Your task to perform on an android device: When is my next meeting? Image 0: 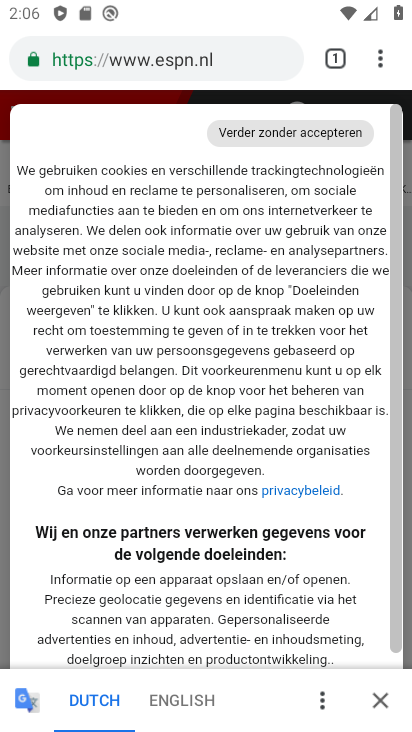
Step 0: press home button
Your task to perform on an android device: When is my next meeting? Image 1: 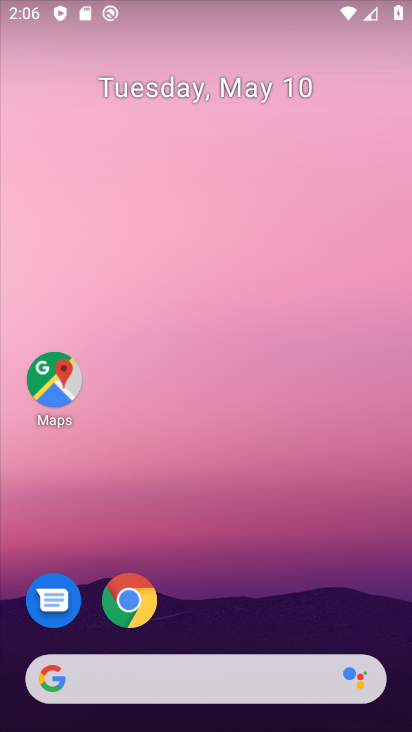
Step 1: drag from (155, 654) to (190, 326)
Your task to perform on an android device: When is my next meeting? Image 2: 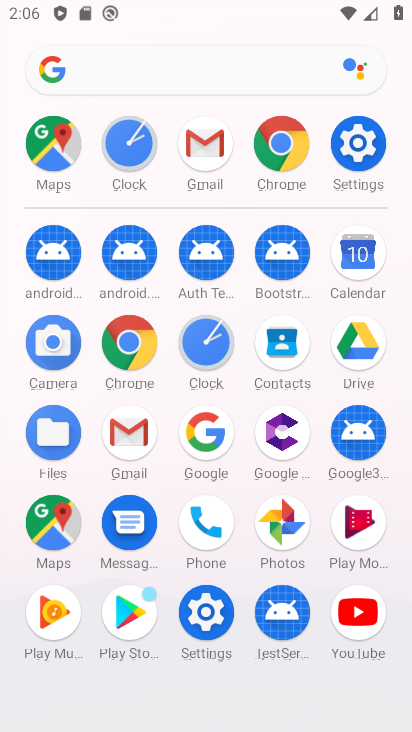
Step 2: click (362, 272)
Your task to perform on an android device: When is my next meeting? Image 3: 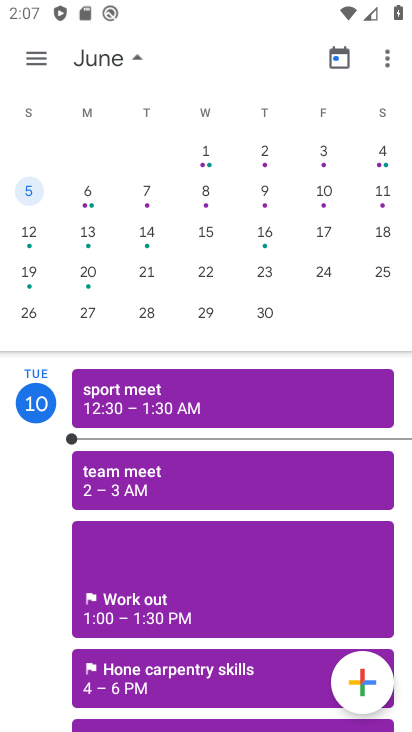
Step 3: drag from (43, 258) to (408, 273)
Your task to perform on an android device: When is my next meeting? Image 4: 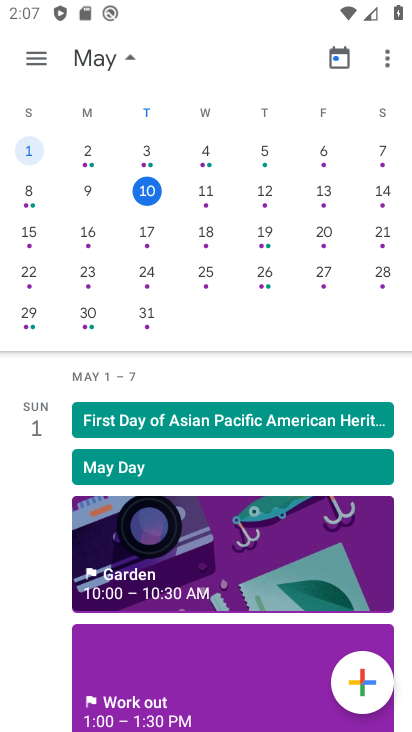
Step 4: drag from (173, 545) to (162, 406)
Your task to perform on an android device: When is my next meeting? Image 5: 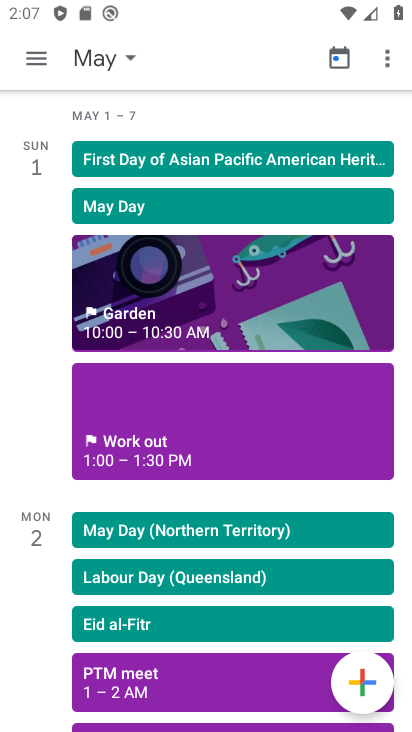
Step 5: drag from (151, 217) to (150, 564)
Your task to perform on an android device: When is my next meeting? Image 6: 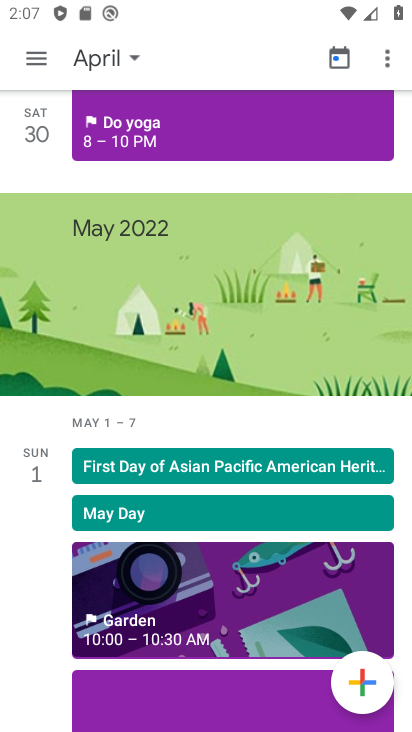
Step 6: drag from (157, 189) to (157, 532)
Your task to perform on an android device: When is my next meeting? Image 7: 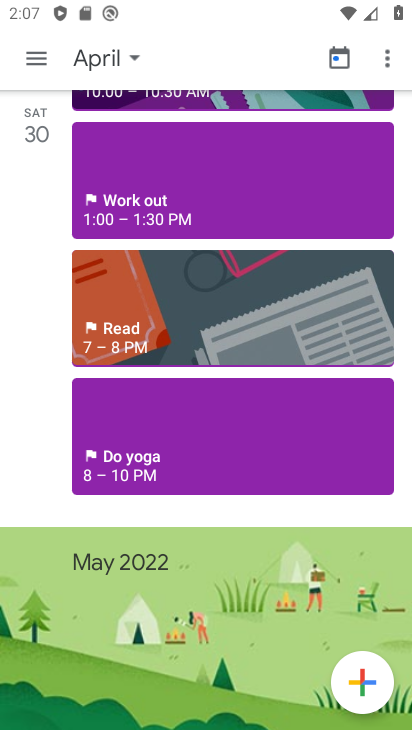
Step 7: click (116, 56)
Your task to perform on an android device: When is my next meeting? Image 8: 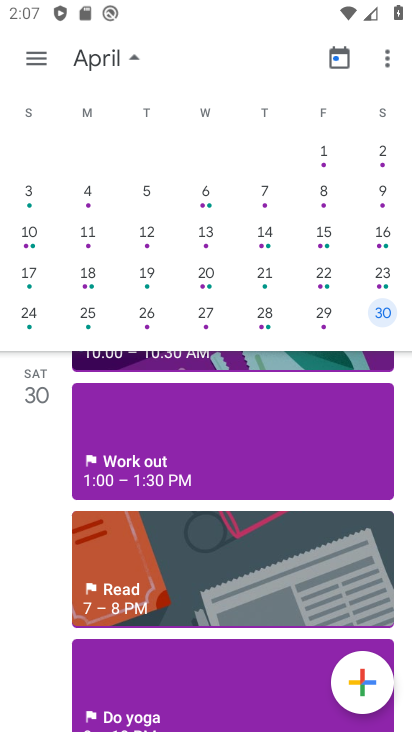
Step 8: drag from (316, 251) to (1, 256)
Your task to perform on an android device: When is my next meeting? Image 9: 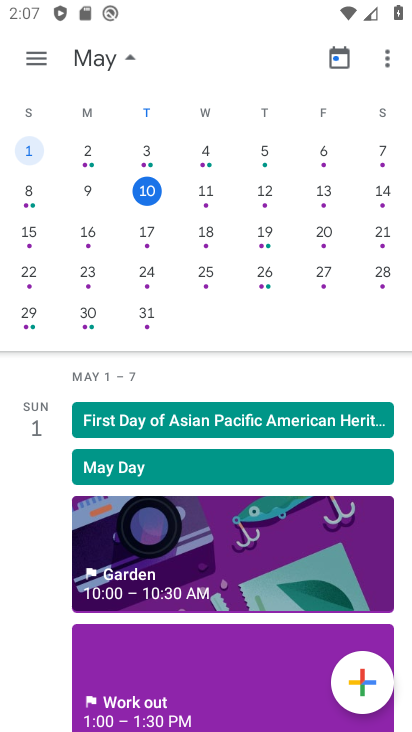
Step 9: click (148, 201)
Your task to perform on an android device: When is my next meeting? Image 10: 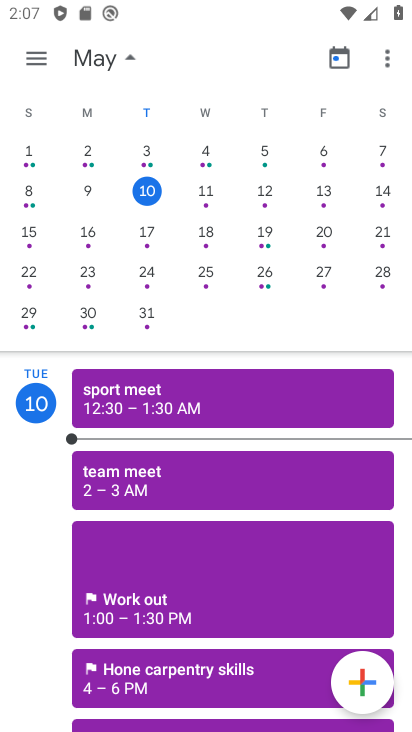
Step 10: task complete